Your task to perform on an android device: empty trash in google photos Image 0: 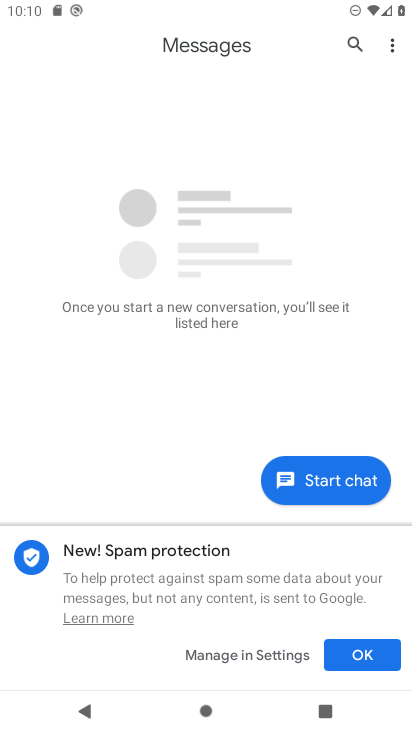
Step 0: press home button
Your task to perform on an android device: empty trash in google photos Image 1: 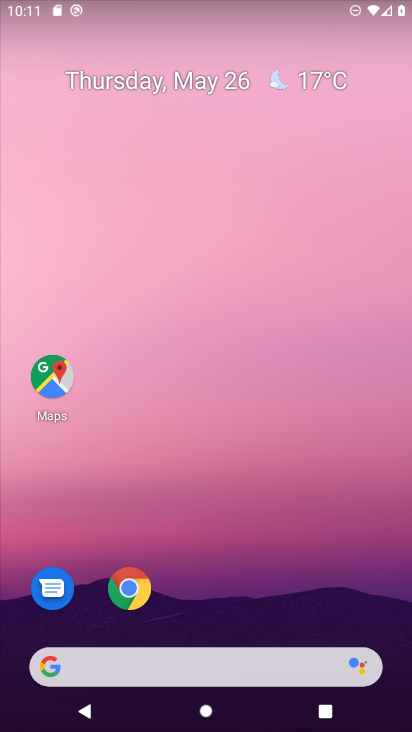
Step 1: drag from (390, 619) to (294, 22)
Your task to perform on an android device: empty trash in google photos Image 2: 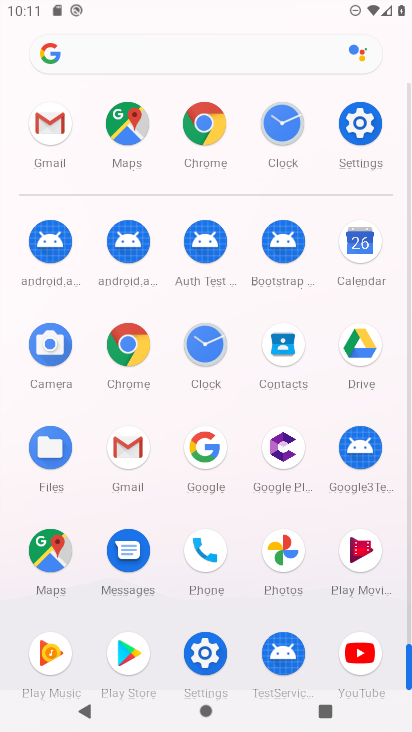
Step 2: click (282, 551)
Your task to perform on an android device: empty trash in google photos Image 3: 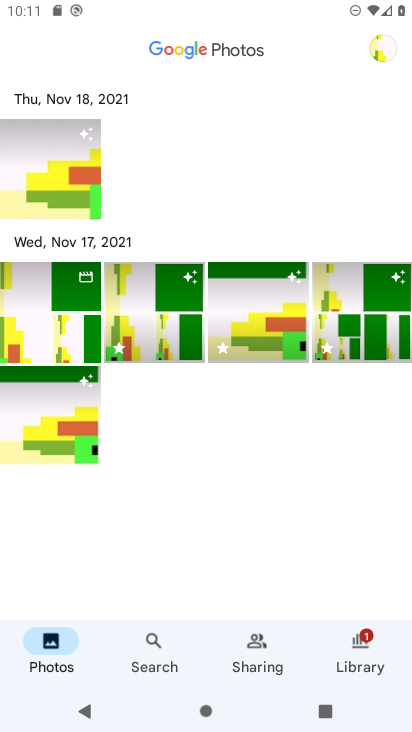
Step 3: click (362, 649)
Your task to perform on an android device: empty trash in google photos Image 4: 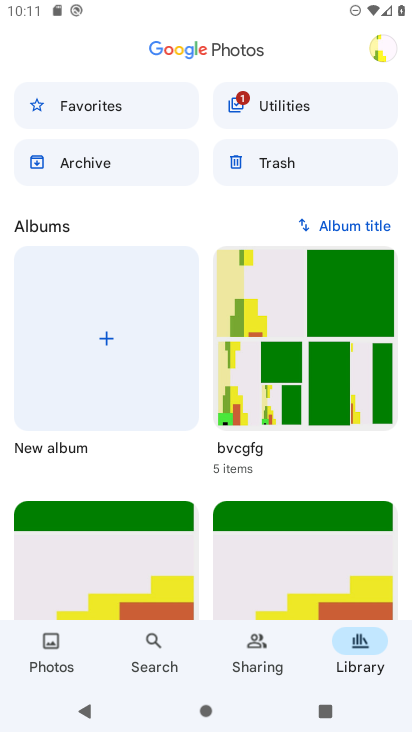
Step 4: click (274, 157)
Your task to perform on an android device: empty trash in google photos Image 5: 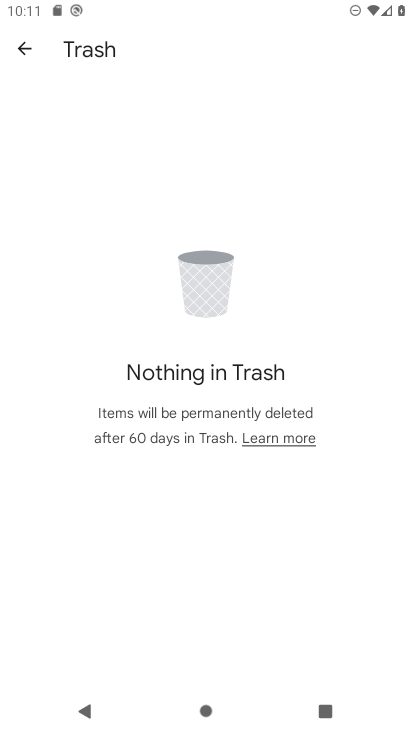
Step 5: task complete